Your task to perform on an android device: toggle airplane mode Image 0: 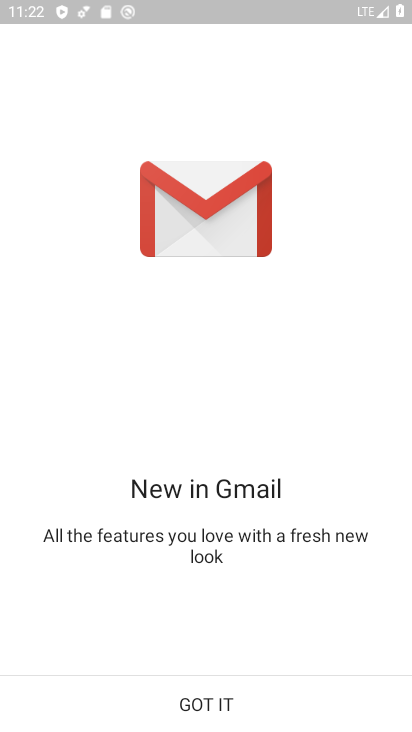
Step 0: click (228, 686)
Your task to perform on an android device: toggle airplane mode Image 1: 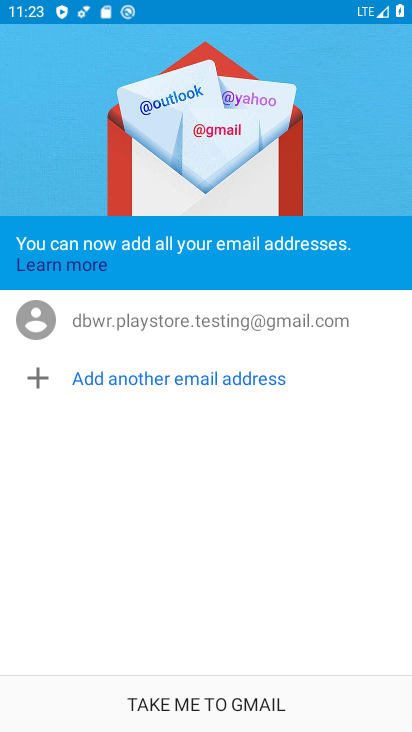
Step 1: press back button
Your task to perform on an android device: toggle airplane mode Image 2: 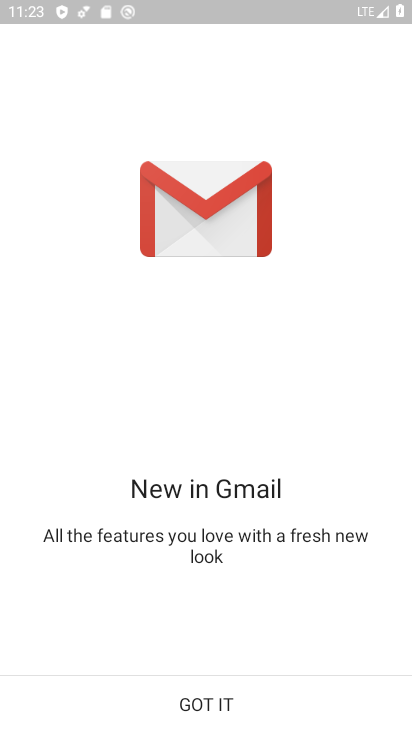
Step 2: press back button
Your task to perform on an android device: toggle airplane mode Image 3: 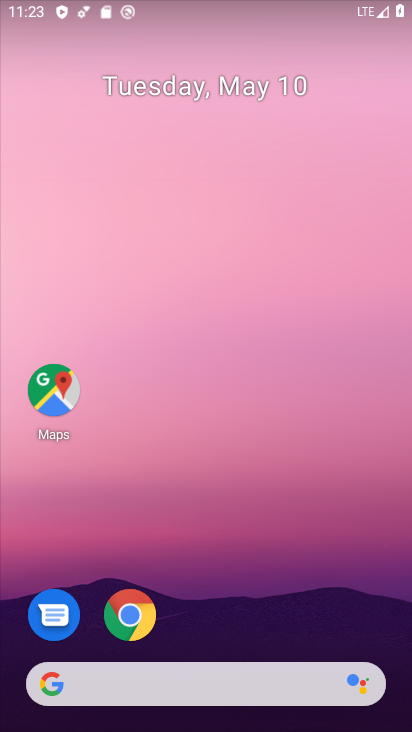
Step 3: drag from (258, 548) to (221, 42)
Your task to perform on an android device: toggle airplane mode Image 4: 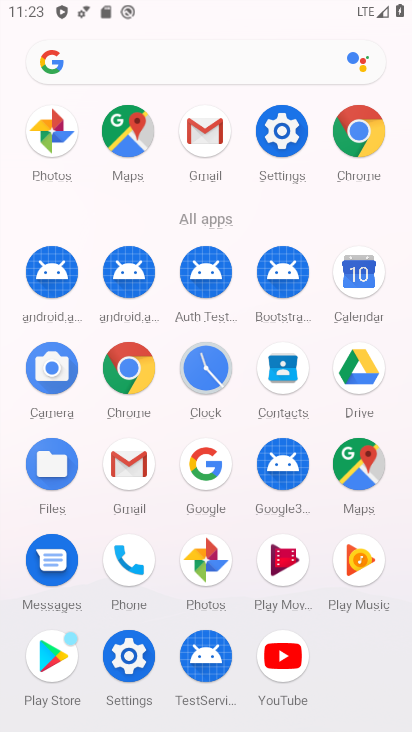
Step 4: click (278, 129)
Your task to perform on an android device: toggle airplane mode Image 5: 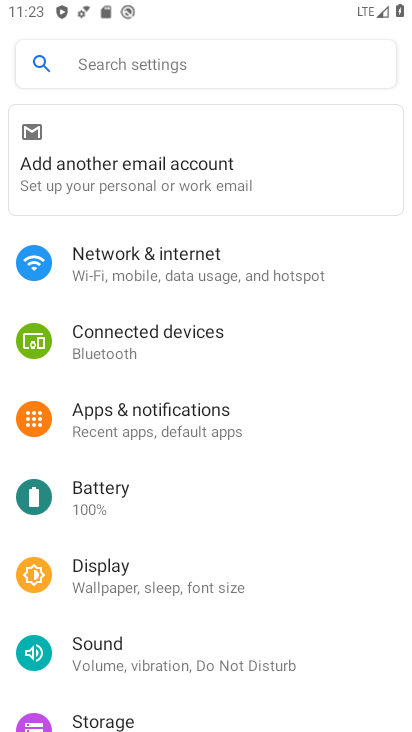
Step 5: click (224, 258)
Your task to perform on an android device: toggle airplane mode Image 6: 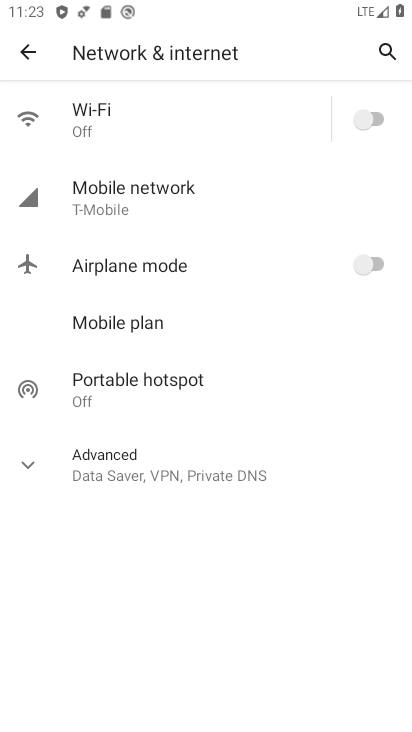
Step 6: click (373, 267)
Your task to perform on an android device: toggle airplane mode Image 7: 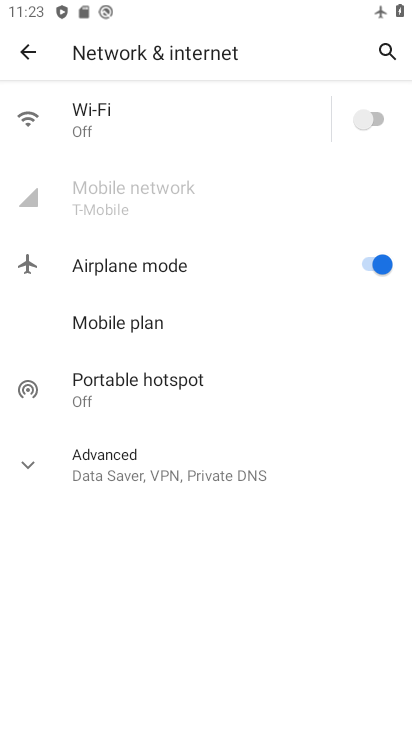
Step 7: task complete